Your task to perform on an android device: Go to privacy settings Image 0: 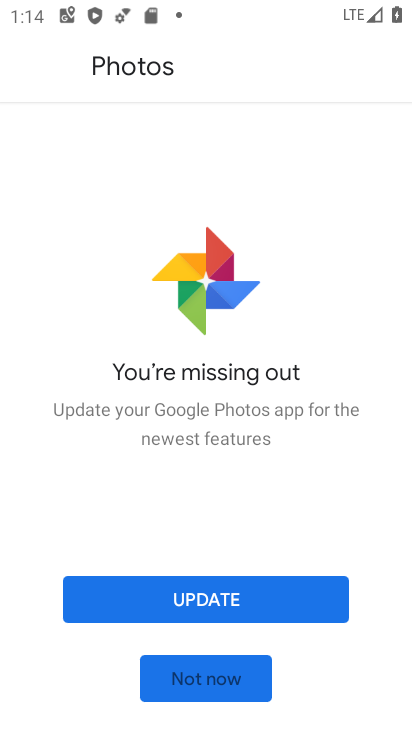
Step 0: press home button
Your task to perform on an android device: Go to privacy settings Image 1: 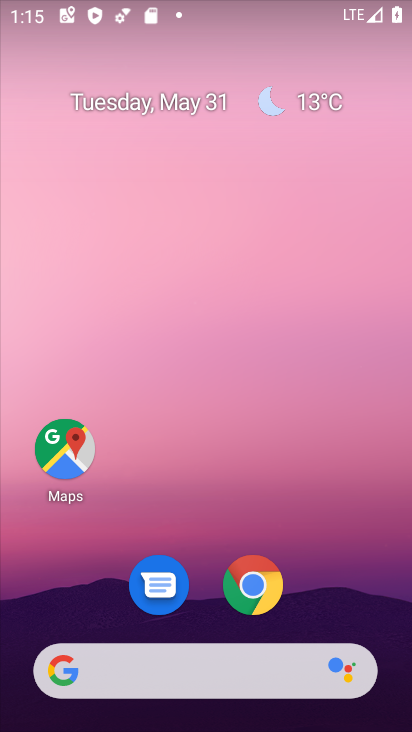
Step 1: drag from (227, 506) to (242, 40)
Your task to perform on an android device: Go to privacy settings Image 2: 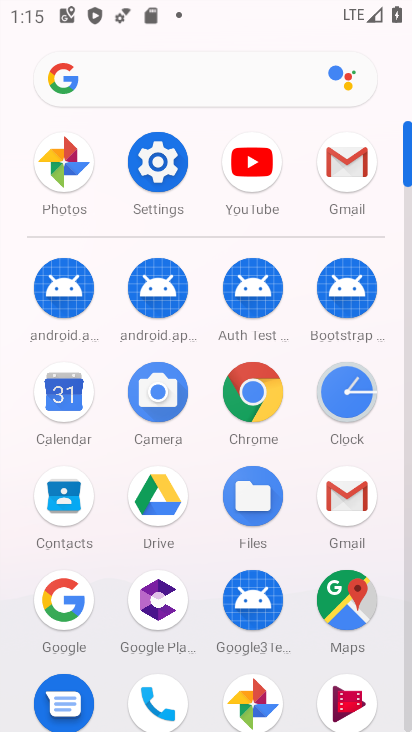
Step 2: click (162, 163)
Your task to perform on an android device: Go to privacy settings Image 3: 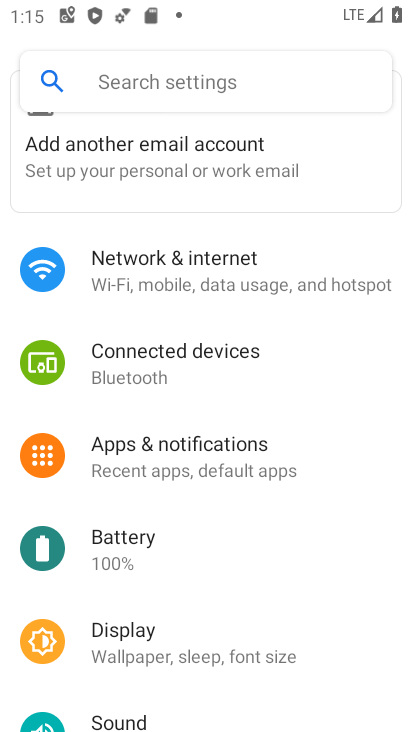
Step 3: drag from (259, 539) to (239, 85)
Your task to perform on an android device: Go to privacy settings Image 4: 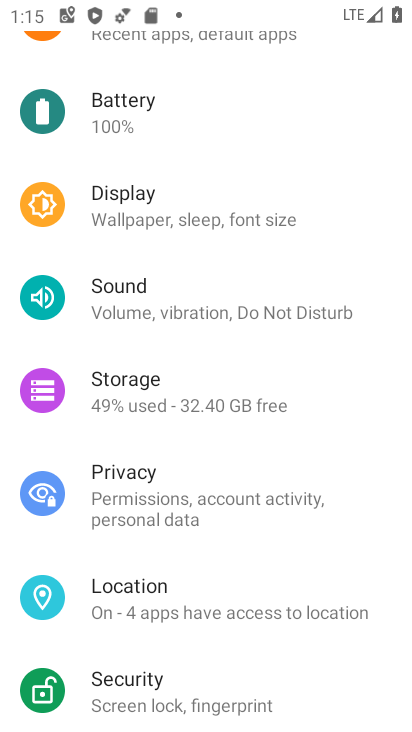
Step 4: click (230, 494)
Your task to perform on an android device: Go to privacy settings Image 5: 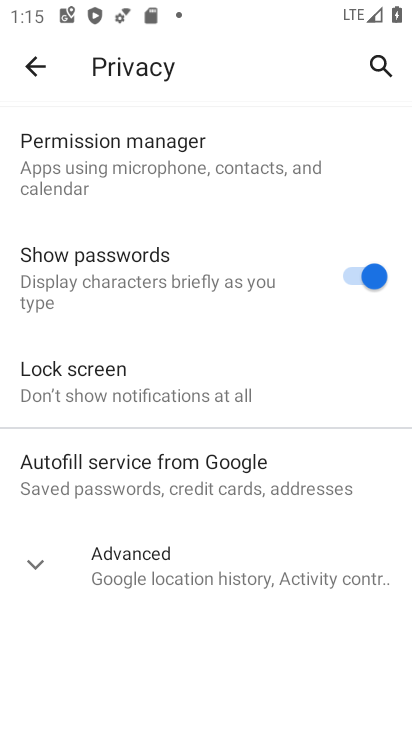
Step 5: task complete